Your task to perform on an android device: Go to notification settings Image 0: 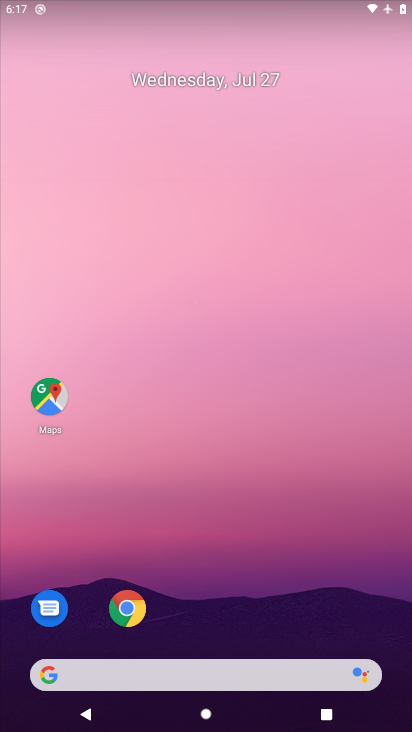
Step 0: press home button
Your task to perform on an android device: Go to notification settings Image 1: 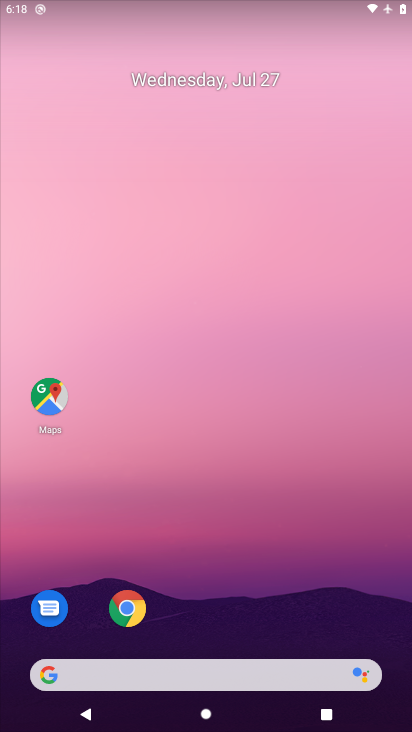
Step 1: drag from (241, 615) to (239, 255)
Your task to perform on an android device: Go to notification settings Image 2: 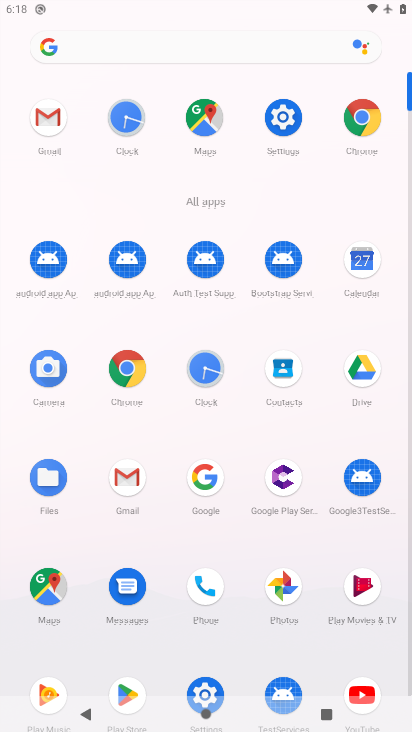
Step 2: click (272, 122)
Your task to perform on an android device: Go to notification settings Image 3: 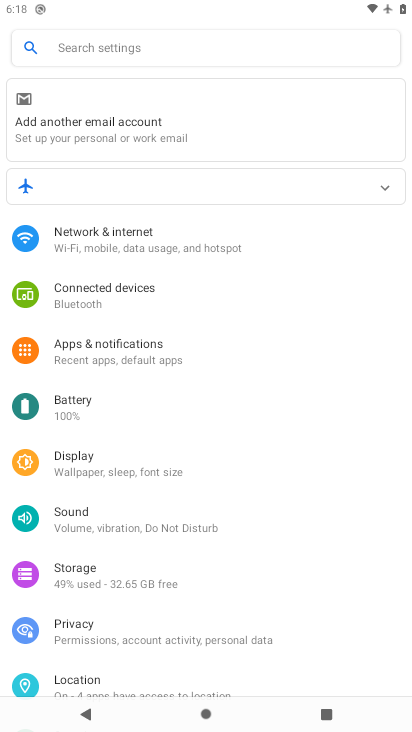
Step 3: click (93, 356)
Your task to perform on an android device: Go to notification settings Image 4: 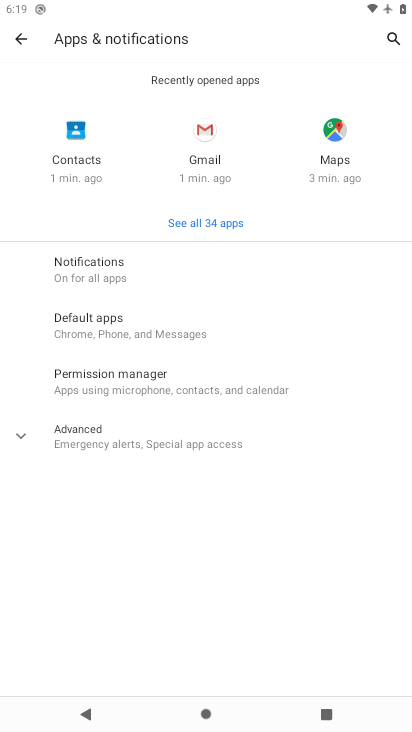
Step 4: click (81, 268)
Your task to perform on an android device: Go to notification settings Image 5: 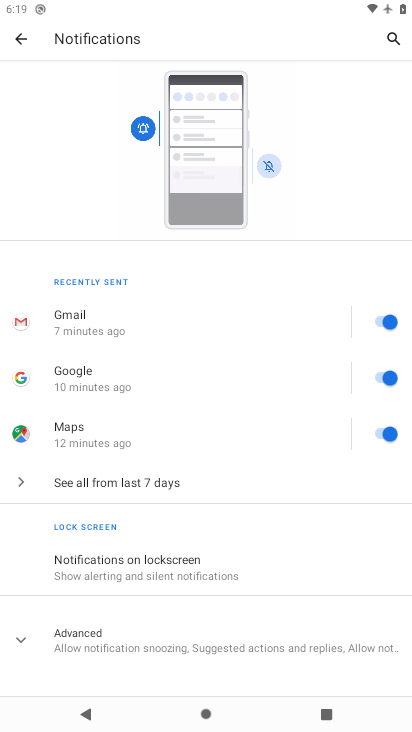
Step 5: task complete